Your task to perform on an android device: Open accessibility settings Image 0: 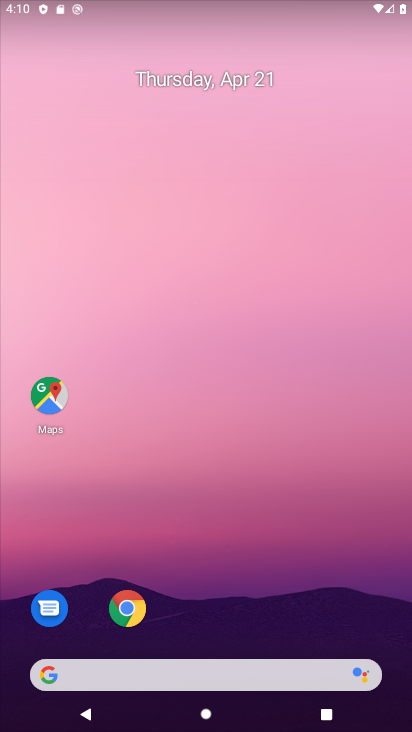
Step 0: drag from (255, 621) to (224, 251)
Your task to perform on an android device: Open accessibility settings Image 1: 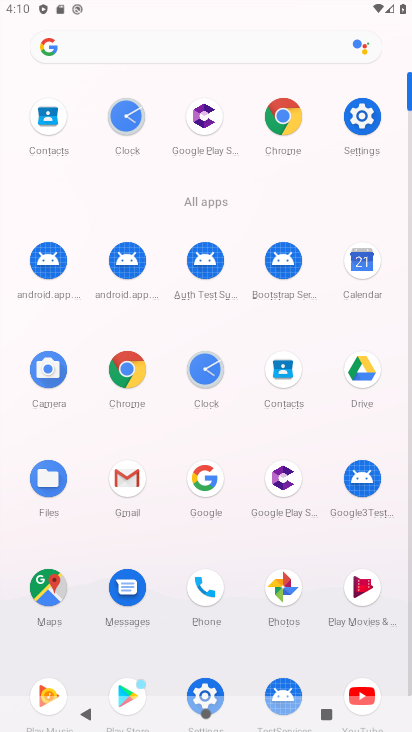
Step 1: click (362, 137)
Your task to perform on an android device: Open accessibility settings Image 2: 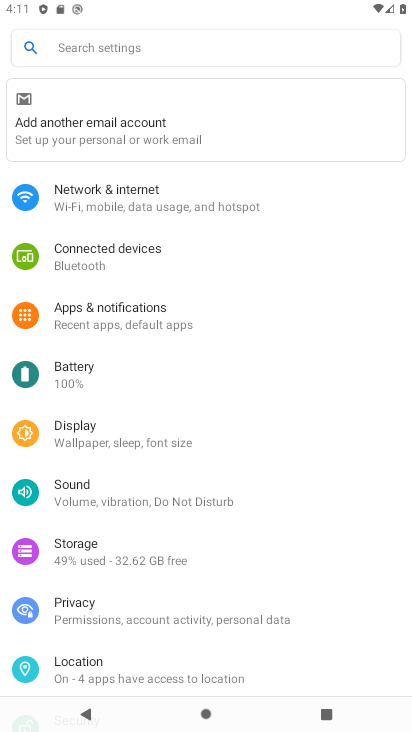
Step 2: drag from (179, 575) to (195, 290)
Your task to perform on an android device: Open accessibility settings Image 3: 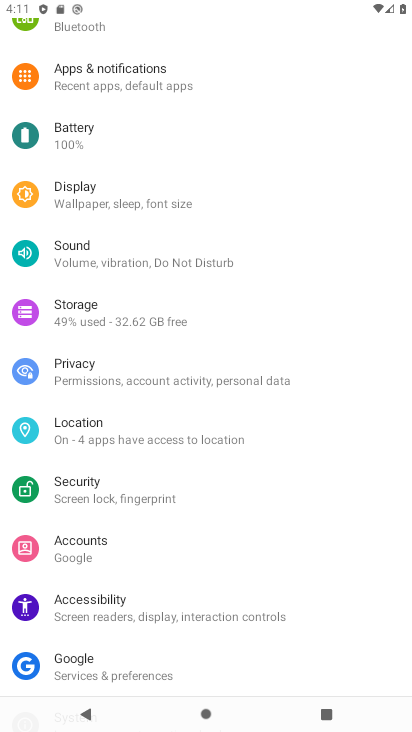
Step 3: click (97, 608)
Your task to perform on an android device: Open accessibility settings Image 4: 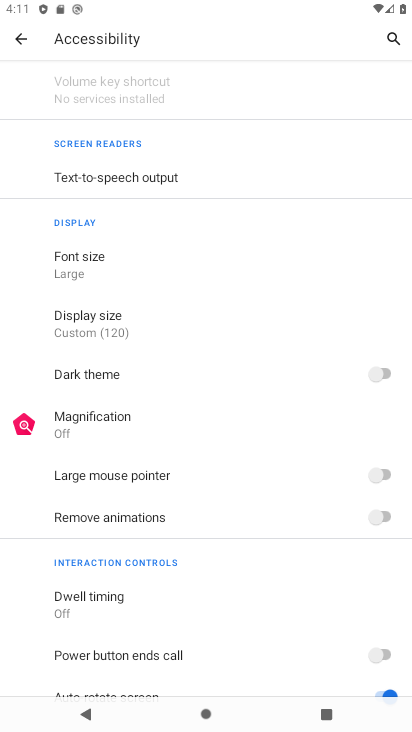
Step 4: task complete